Your task to perform on an android device: Open Google Chrome and click the shortcut for Amazon.com Image 0: 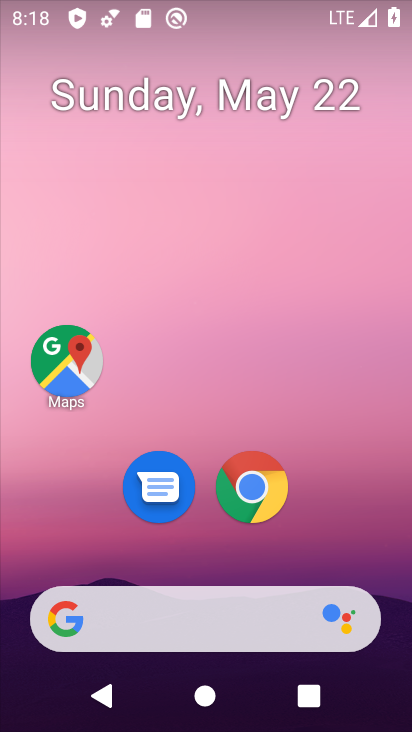
Step 0: drag from (316, 538) to (360, 3)
Your task to perform on an android device: Open Google Chrome and click the shortcut for Amazon.com Image 1: 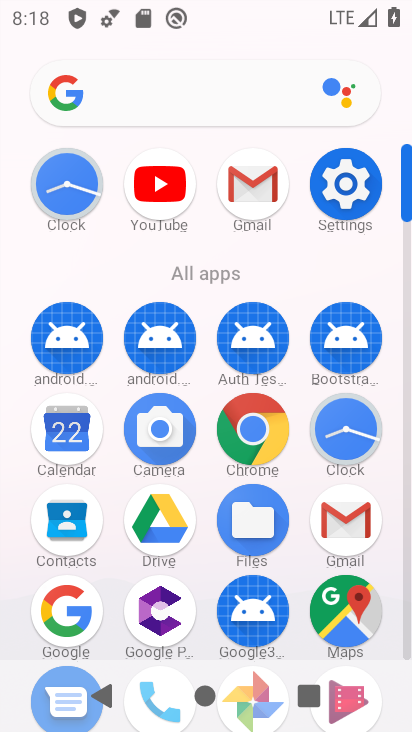
Step 1: click (263, 439)
Your task to perform on an android device: Open Google Chrome and click the shortcut for Amazon.com Image 2: 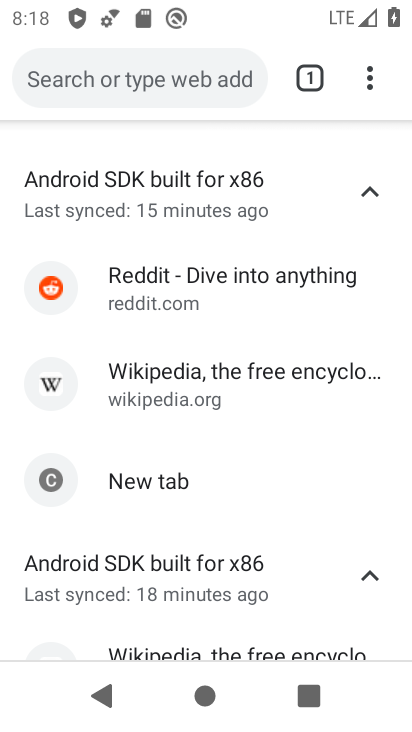
Step 2: drag from (365, 70) to (141, 146)
Your task to perform on an android device: Open Google Chrome and click the shortcut for Amazon.com Image 3: 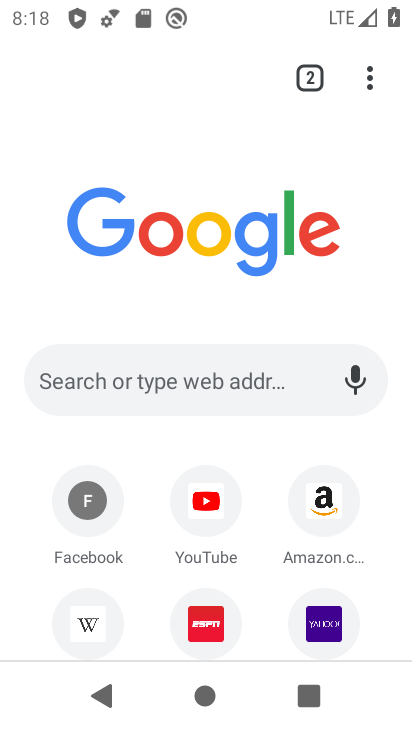
Step 3: click (334, 509)
Your task to perform on an android device: Open Google Chrome and click the shortcut for Amazon.com Image 4: 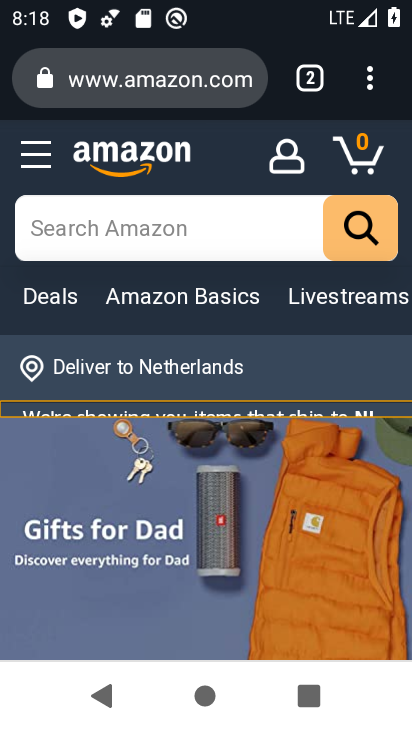
Step 4: drag from (362, 87) to (260, 372)
Your task to perform on an android device: Open Google Chrome and click the shortcut for Amazon.com Image 5: 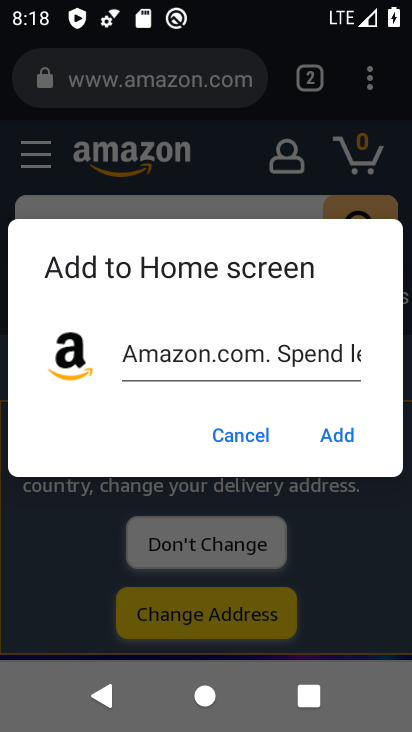
Step 5: click (347, 434)
Your task to perform on an android device: Open Google Chrome and click the shortcut for Amazon.com Image 6: 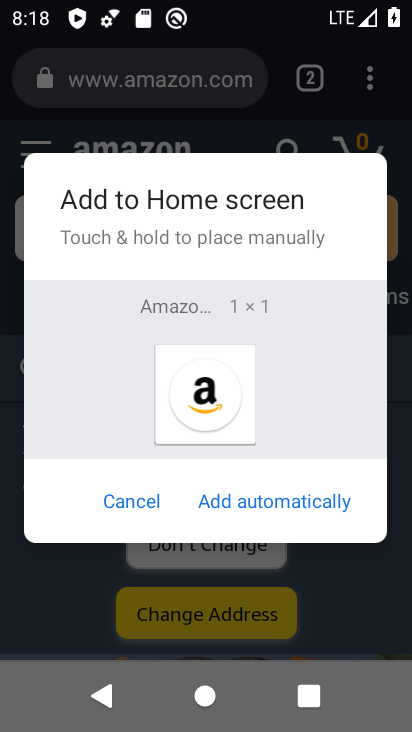
Step 6: click (307, 502)
Your task to perform on an android device: Open Google Chrome and click the shortcut for Amazon.com Image 7: 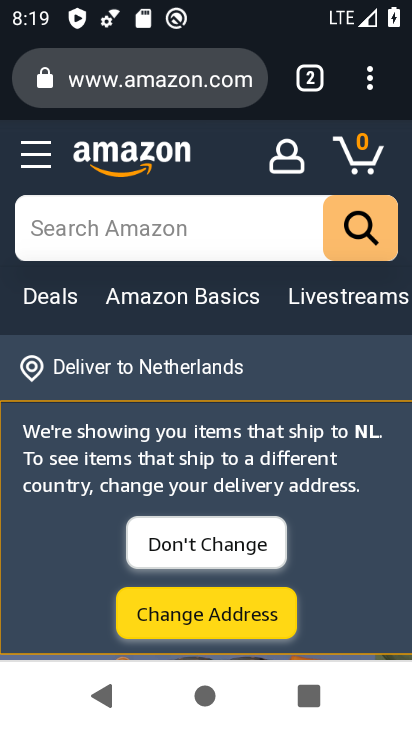
Step 7: task complete